Your task to perform on an android device: Open Google Maps Image 0: 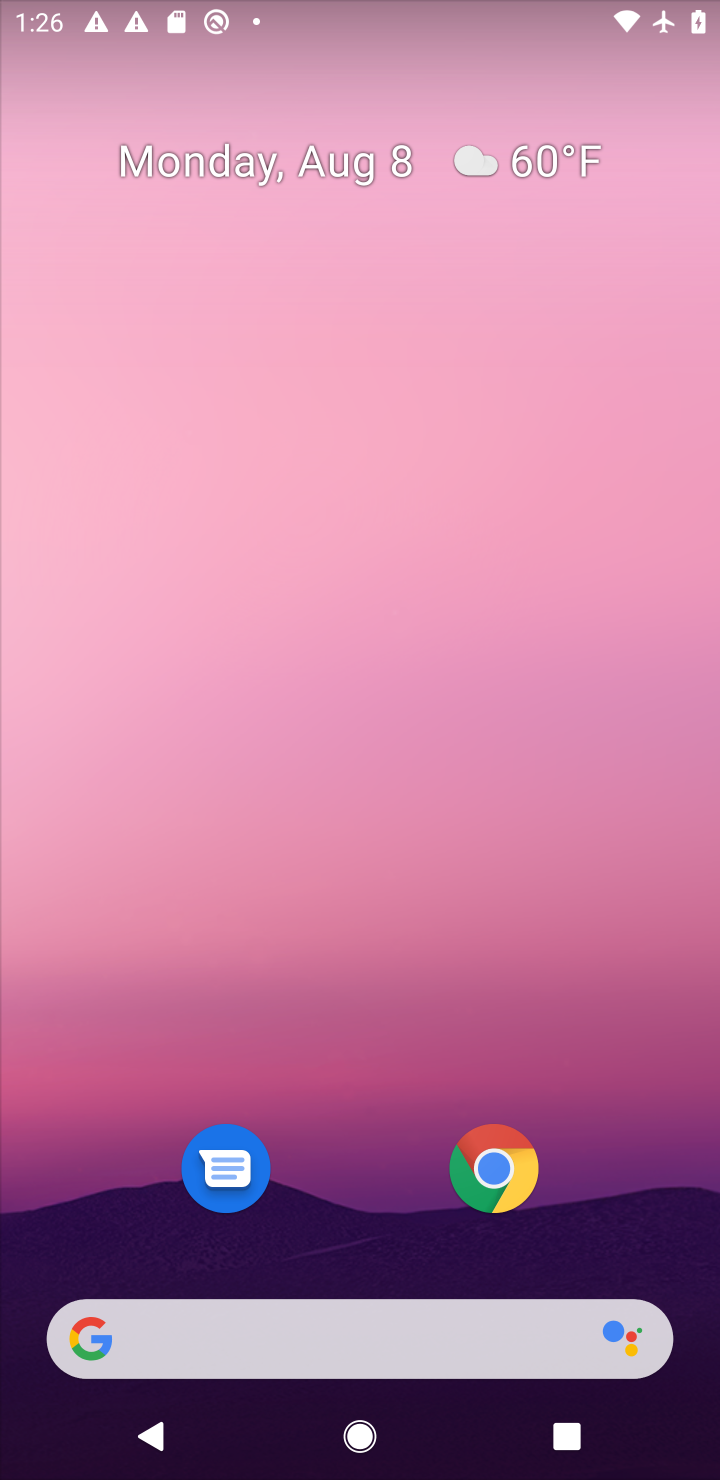
Step 0: drag from (454, 1224) to (283, 221)
Your task to perform on an android device: Open Google Maps Image 1: 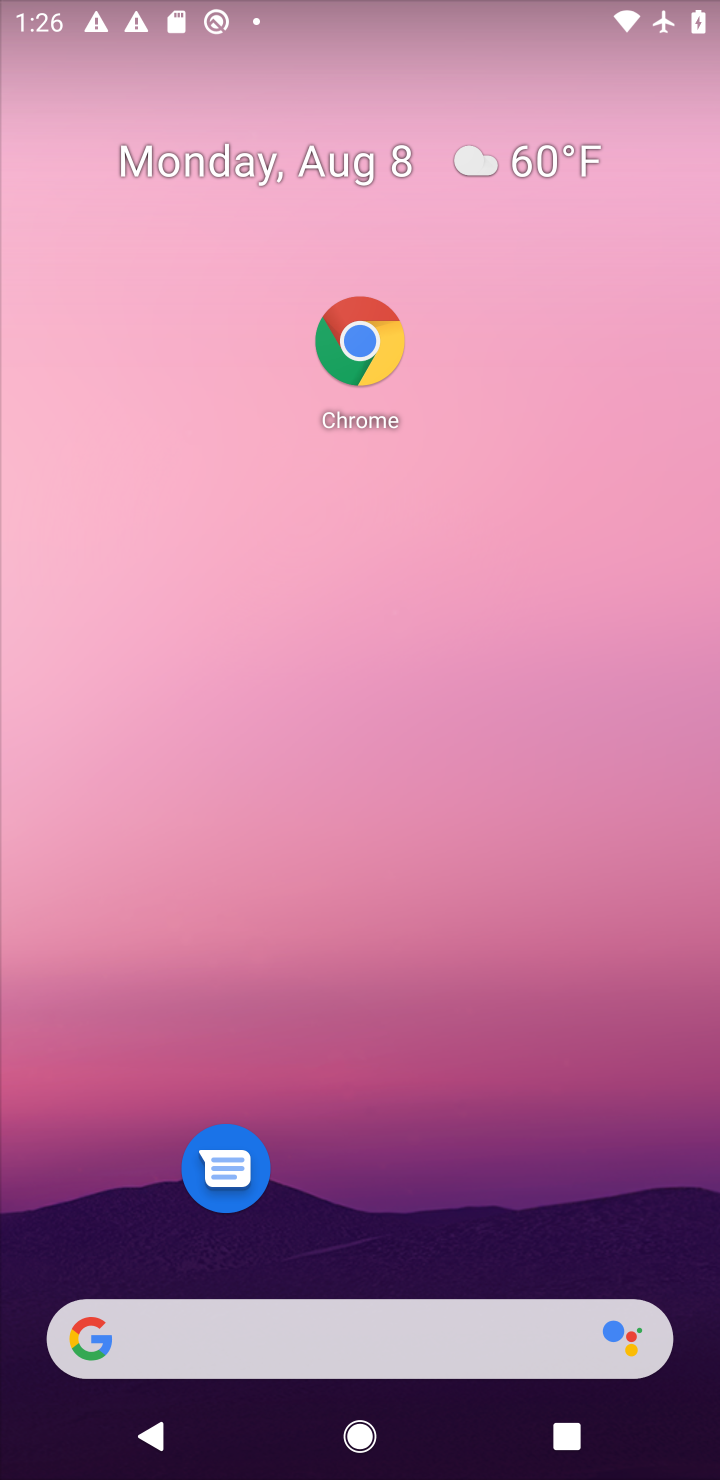
Step 1: drag from (548, 1270) to (463, 66)
Your task to perform on an android device: Open Google Maps Image 2: 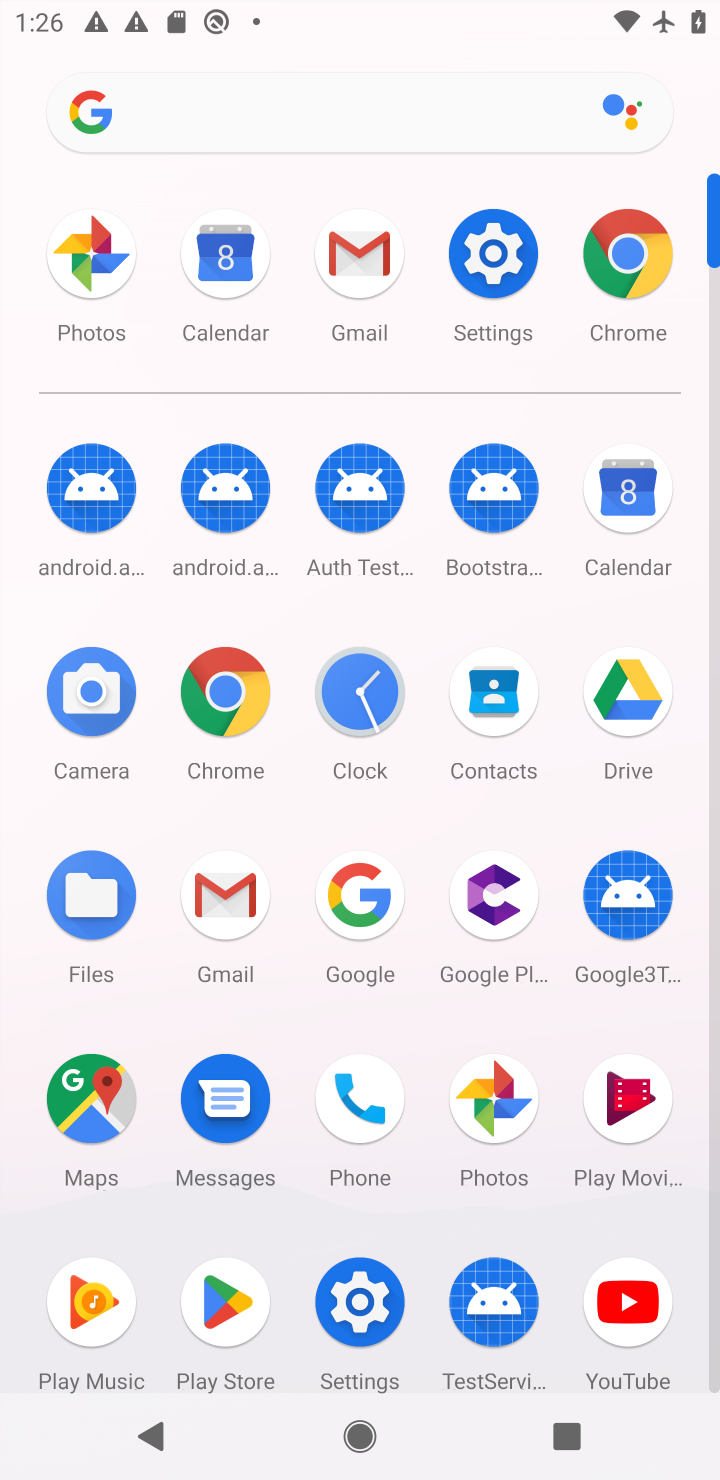
Step 2: click (114, 1113)
Your task to perform on an android device: Open Google Maps Image 3: 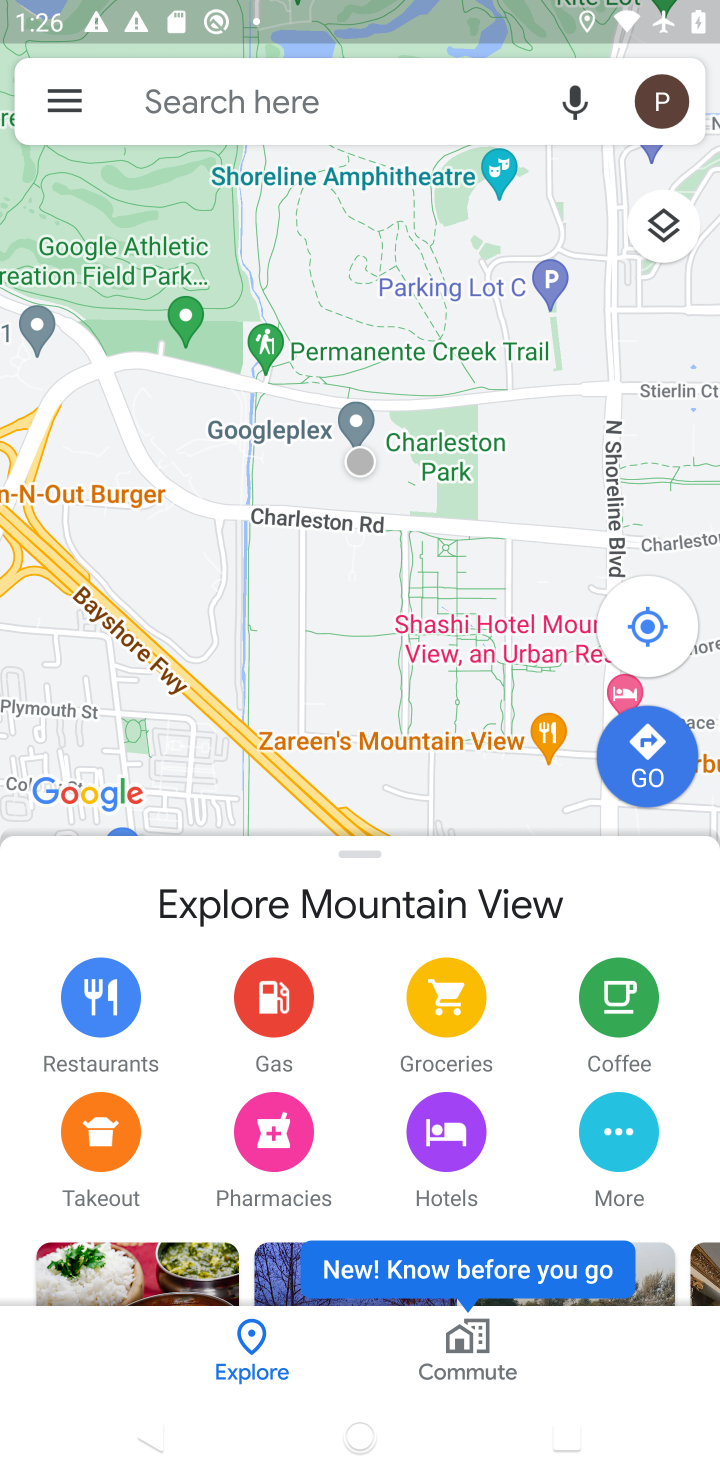
Step 3: task complete